Your task to perform on an android device: uninstall "Pinterest" Image 0: 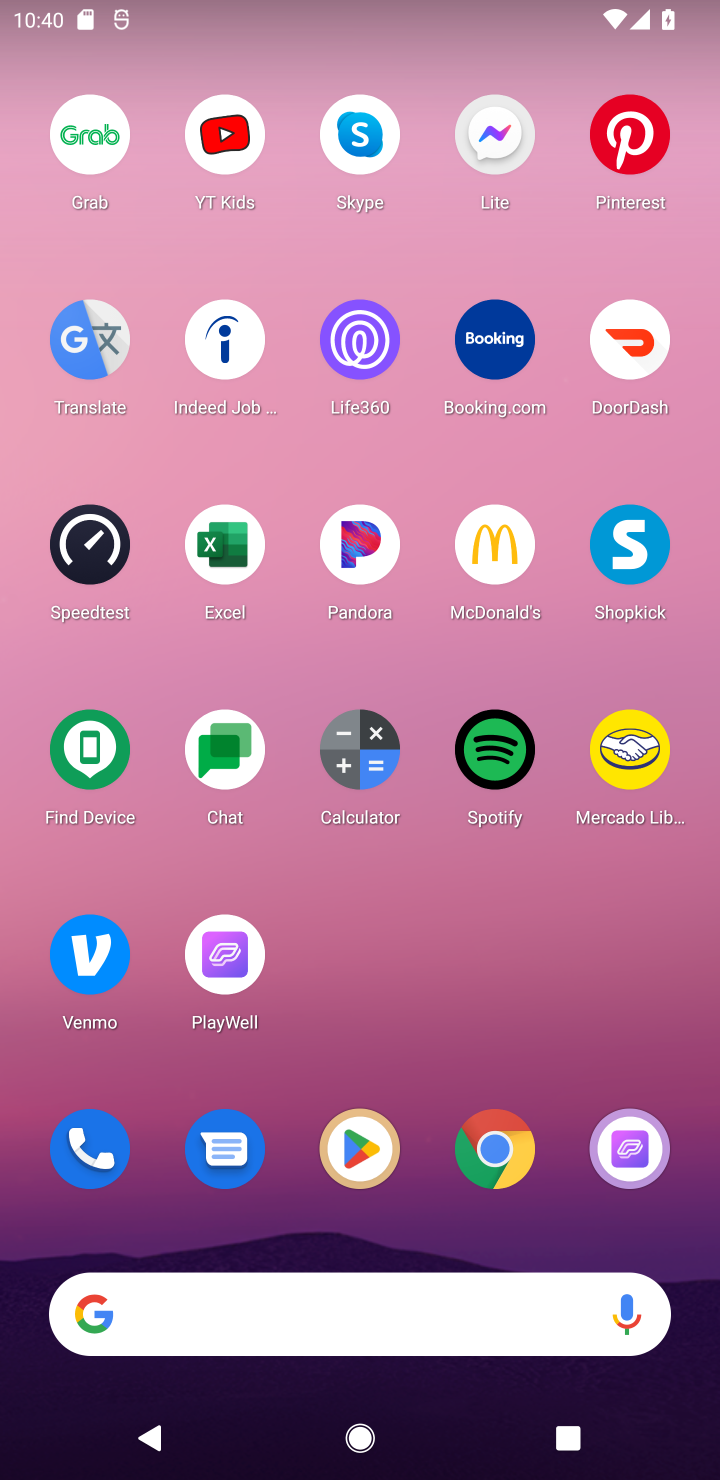
Step 0: click (632, 159)
Your task to perform on an android device: uninstall "Pinterest" Image 1: 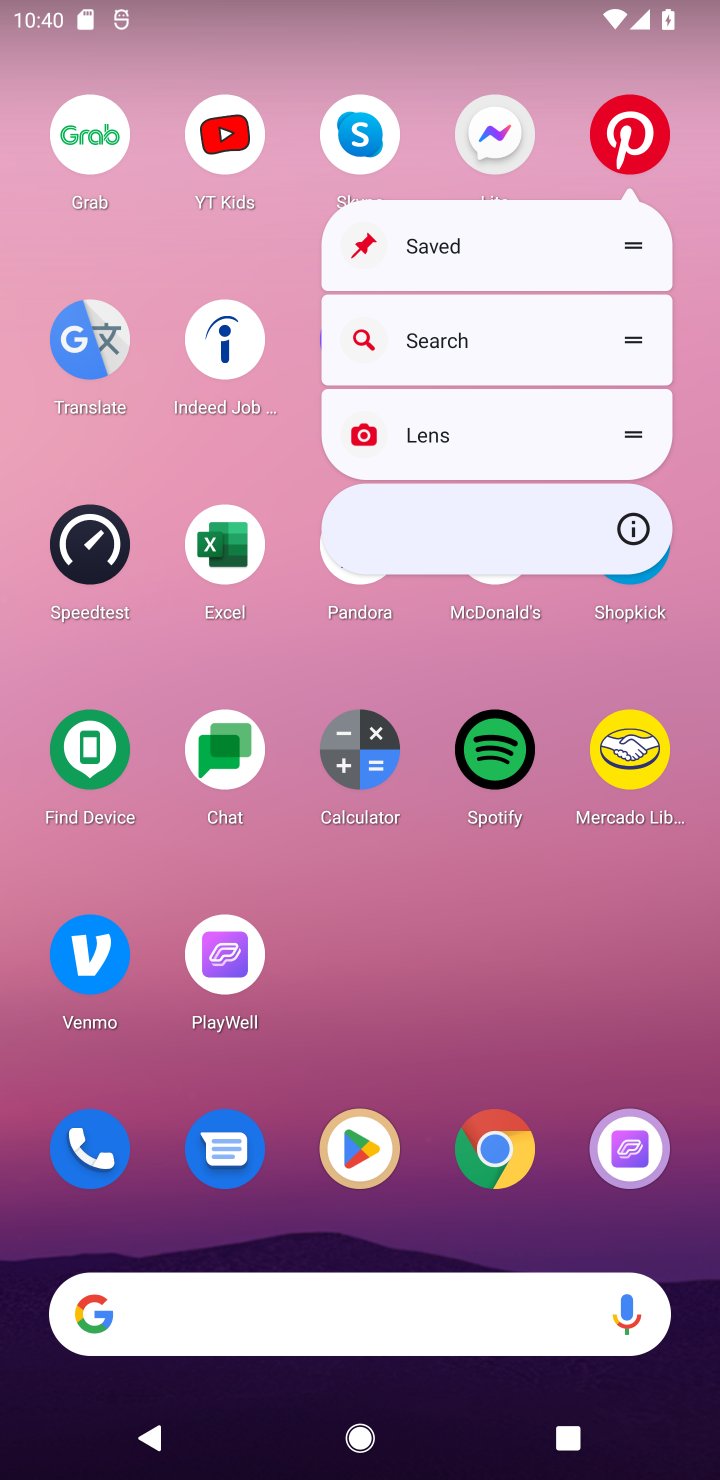
Step 1: click (615, 533)
Your task to perform on an android device: uninstall "Pinterest" Image 2: 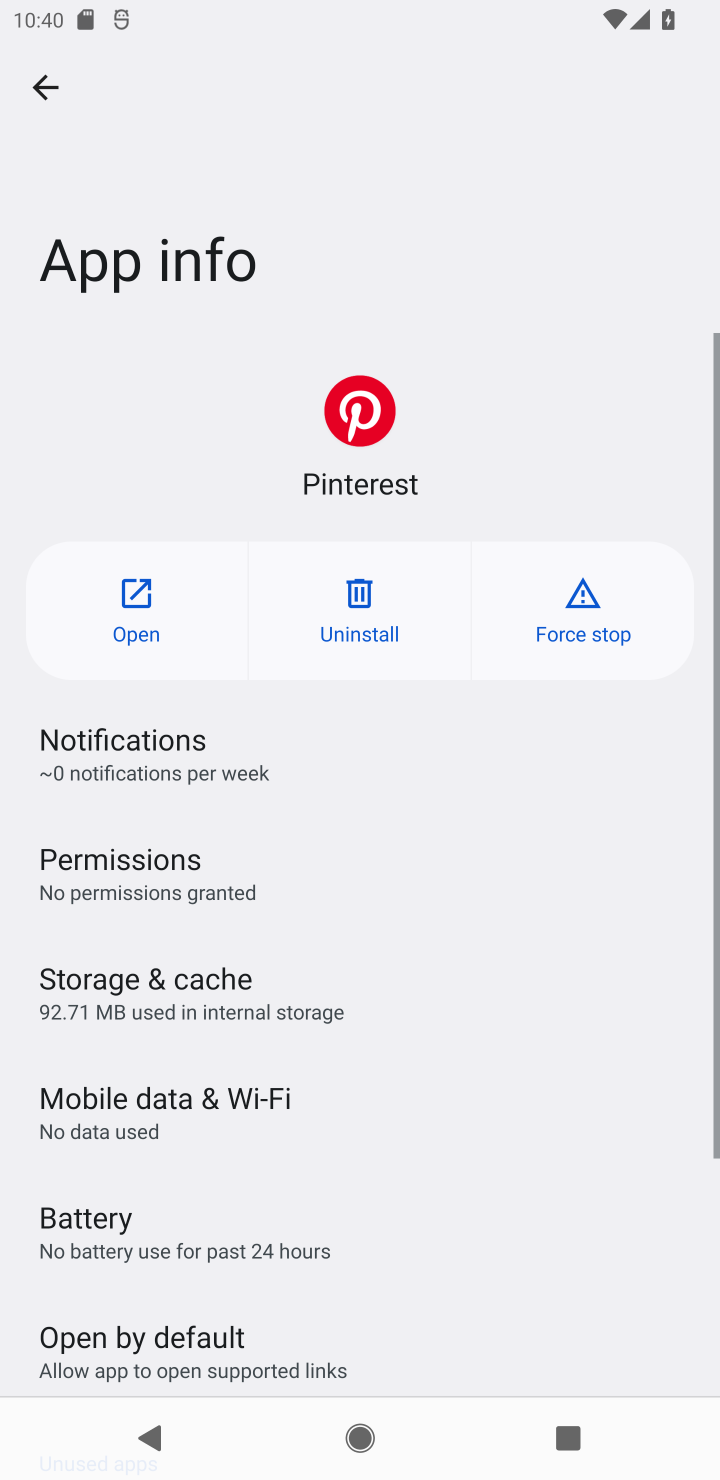
Step 2: click (335, 600)
Your task to perform on an android device: uninstall "Pinterest" Image 3: 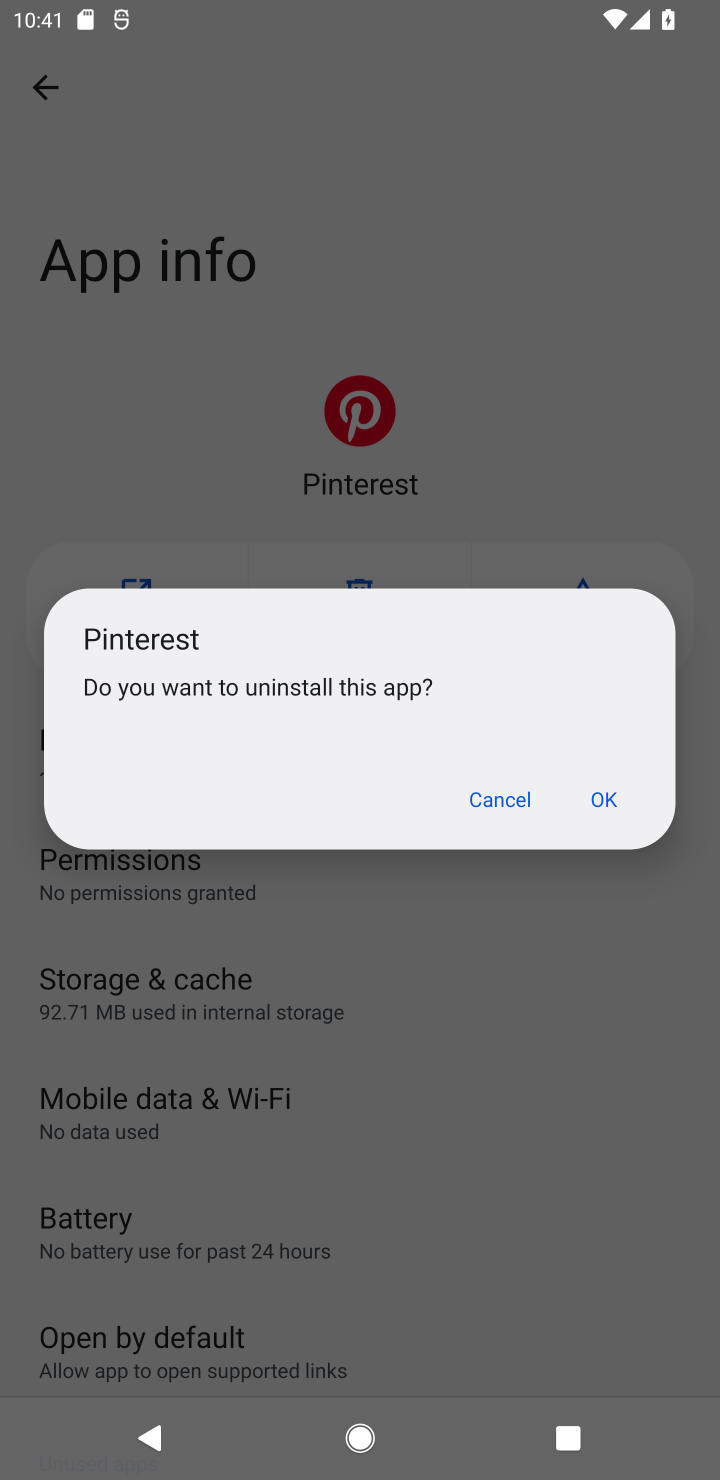
Step 3: click (581, 788)
Your task to perform on an android device: uninstall "Pinterest" Image 4: 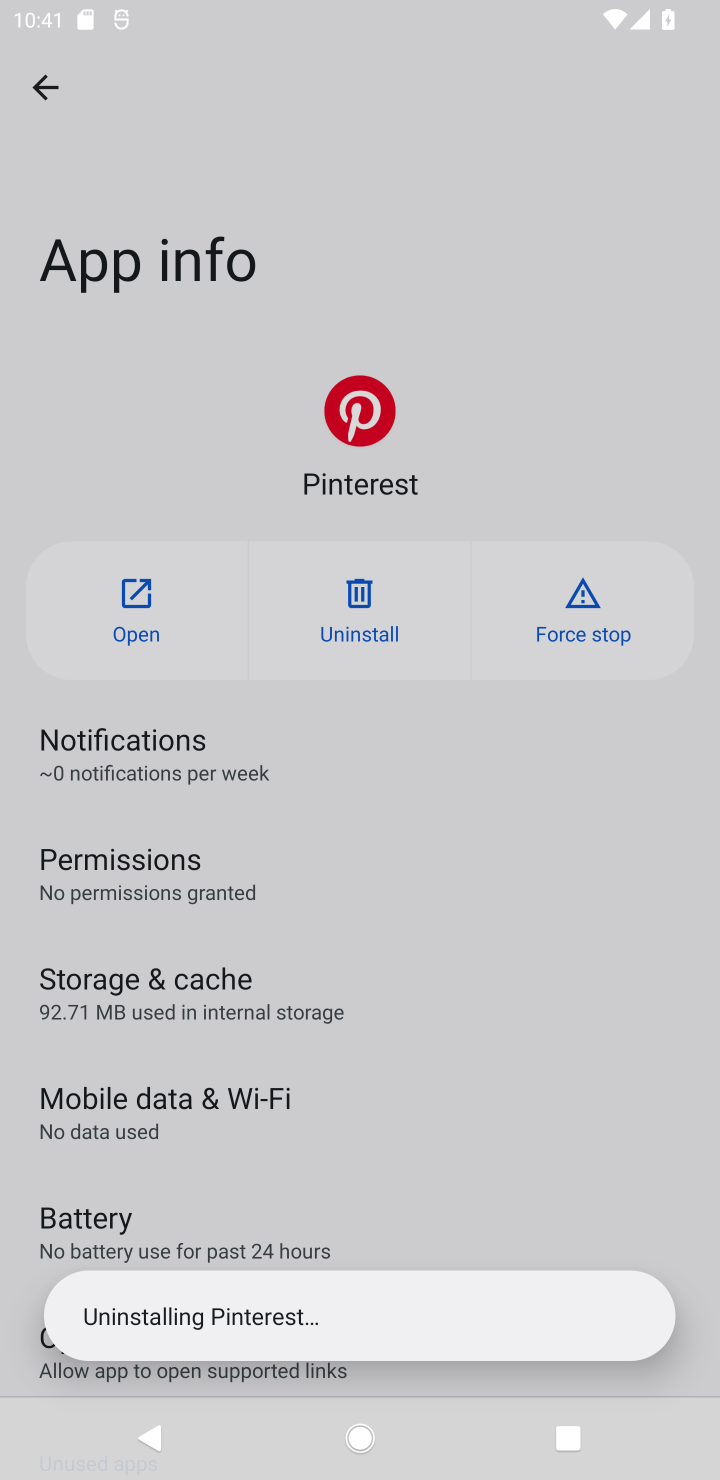
Step 4: task complete